Your task to perform on an android device: read, delete, or share a saved page in the chrome app Image 0: 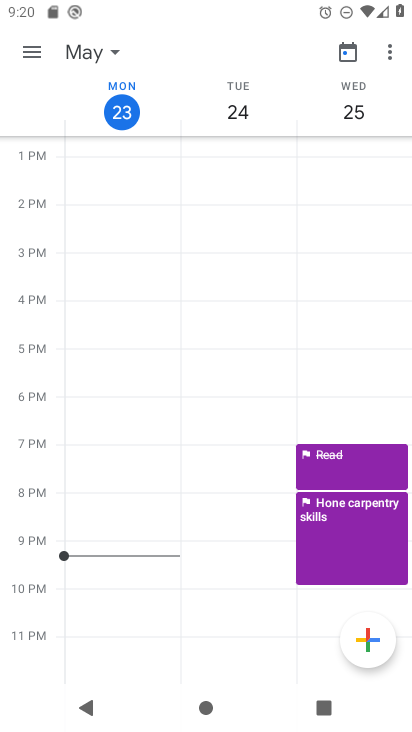
Step 0: press home button
Your task to perform on an android device: read, delete, or share a saved page in the chrome app Image 1: 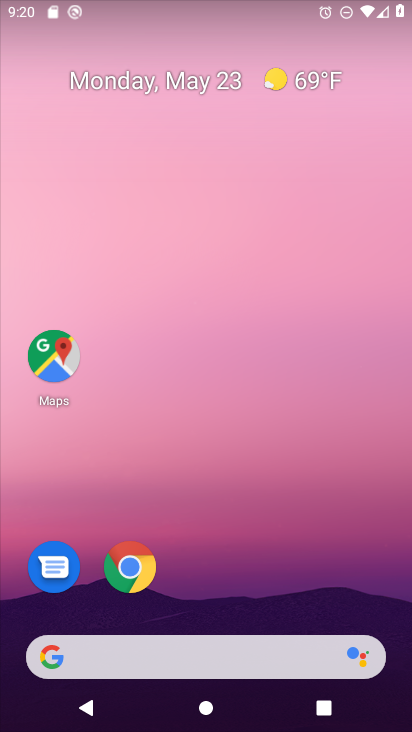
Step 1: click (245, 334)
Your task to perform on an android device: read, delete, or share a saved page in the chrome app Image 2: 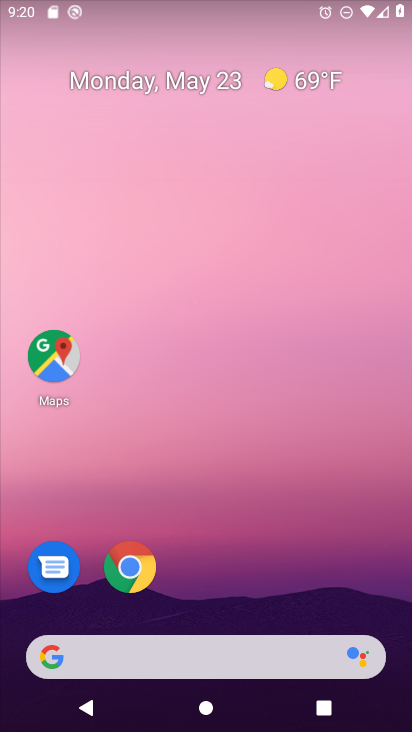
Step 2: drag from (223, 576) to (244, 408)
Your task to perform on an android device: read, delete, or share a saved page in the chrome app Image 3: 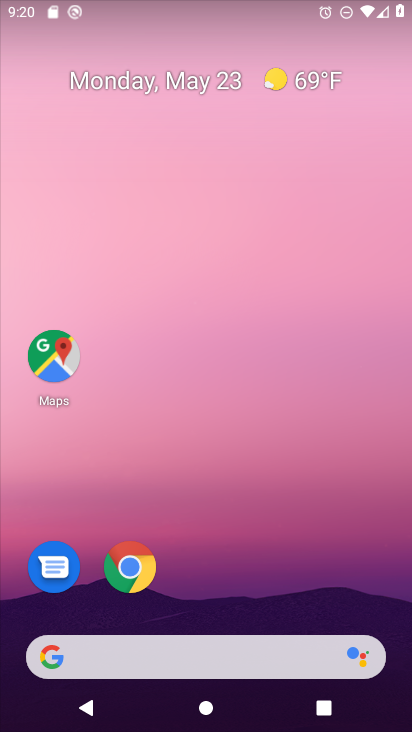
Step 3: click (128, 574)
Your task to perform on an android device: read, delete, or share a saved page in the chrome app Image 4: 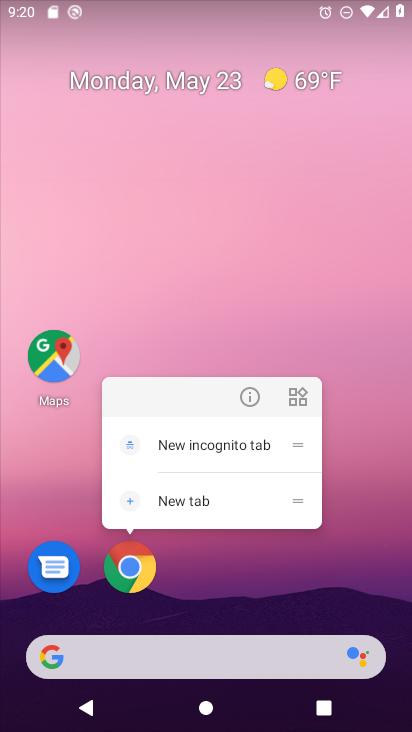
Step 4: click (130, 576)
Your task to perform on an android device: read, delete, or share a saved page in the chrome app Image 5: 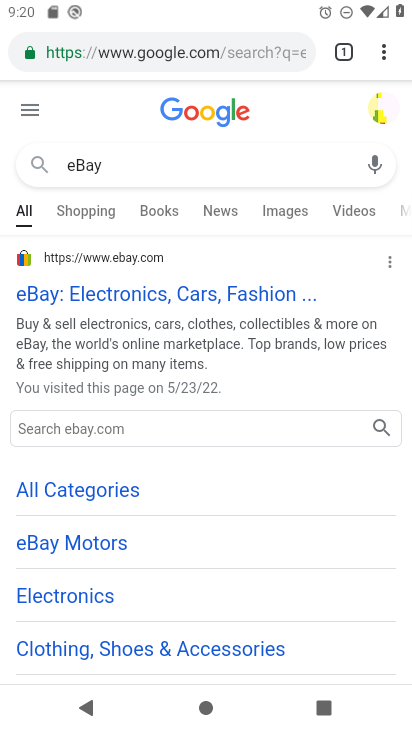
Step 5: click (385, 56)
Your task to perform on an android device: read, delete, or share a saved page in the chrome app Image 6: 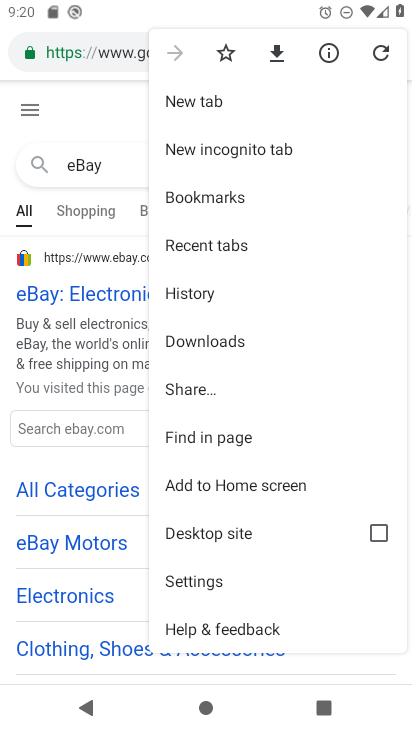
Step 6: click (222, 342)
Your task to perform on an android device: read, delete, or share a saved page in the chrome app Image 7: 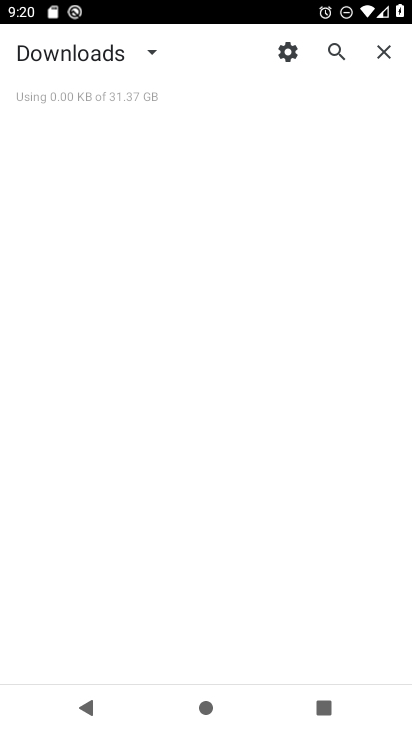
Step 7: task complete